Your task to perform on an android device: change the clock display to analog Image 0: 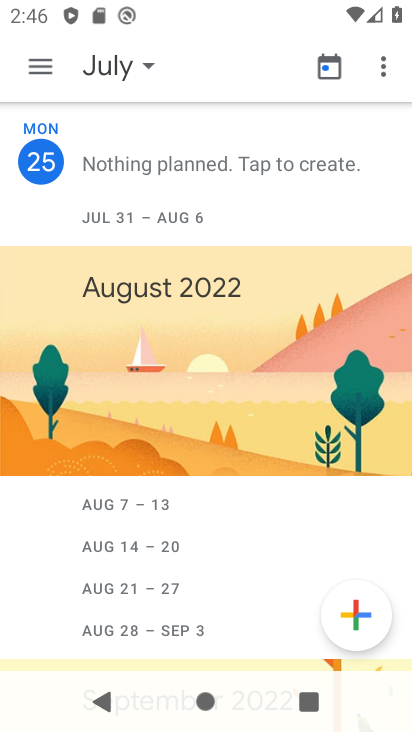
Step 0: press home button
Your task to perform on an android device: change the clock display to analog Image 1: 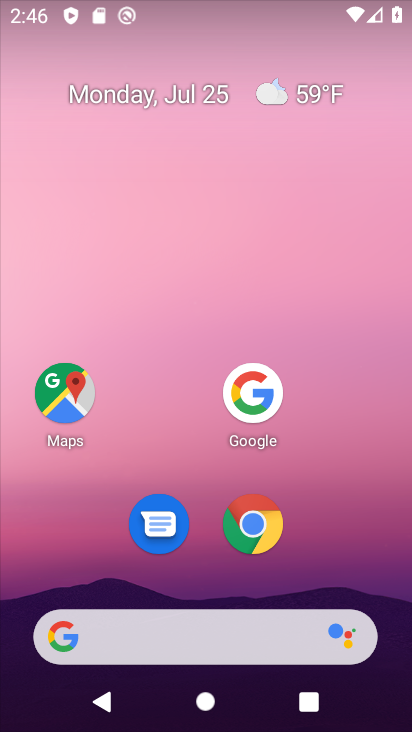
Step 1: drag from (196, 653) to (350, 4)
Your task to perform on an android device: change the clock display to analog Image 2: 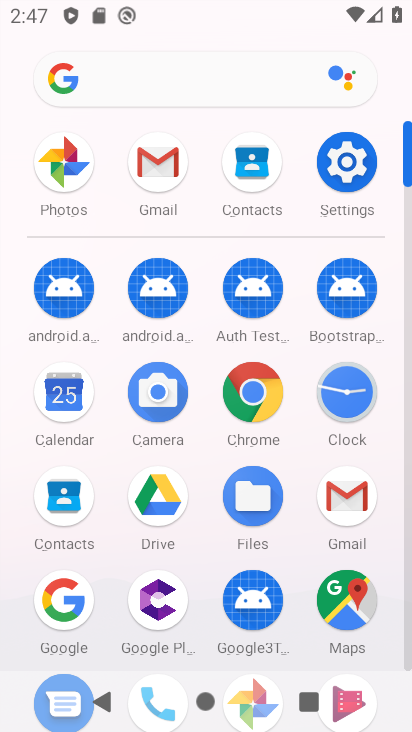
Step 2: click (355, 392)
Your task to perform on an android device: change the clock display to analog Image 3: 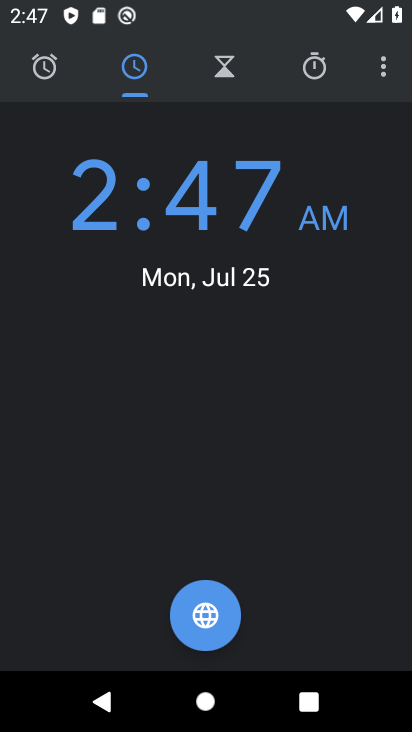
Step 3: click (379, 66)
Your task to perform on an android device: change the clock display to analog Image 4: 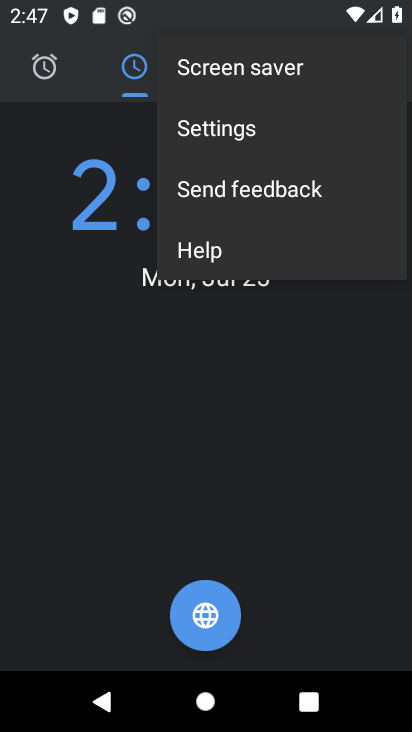
Step 4: click (238, 133)
Your task to perform on an android device: change the clock display to analog Image 5: 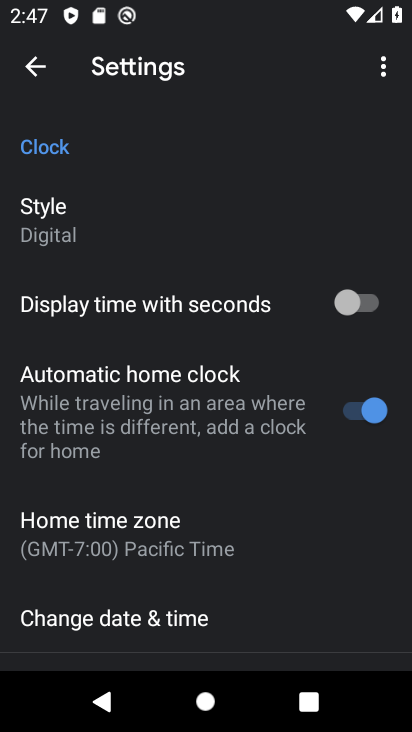
Step 5: click (57, 227)
Your task to perform on an android device: change the clock display to analog Image 6: 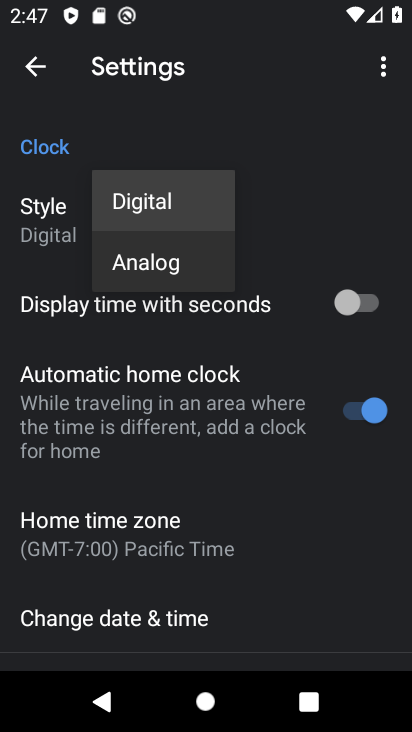
Step 6: click (129, 250)
Your task to perform on an android device: change the clock display to analog Image 7: 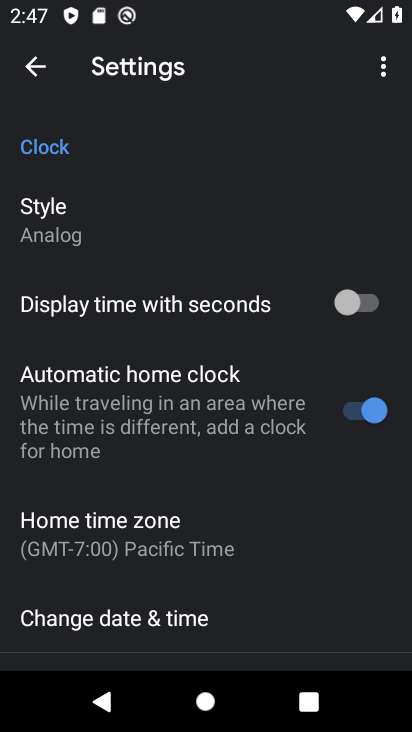
Step 7: task complete